Your task to perform on an android device: Search for "macbook pro" on ebay, select the first entry, and add it to the cart. Image 0: 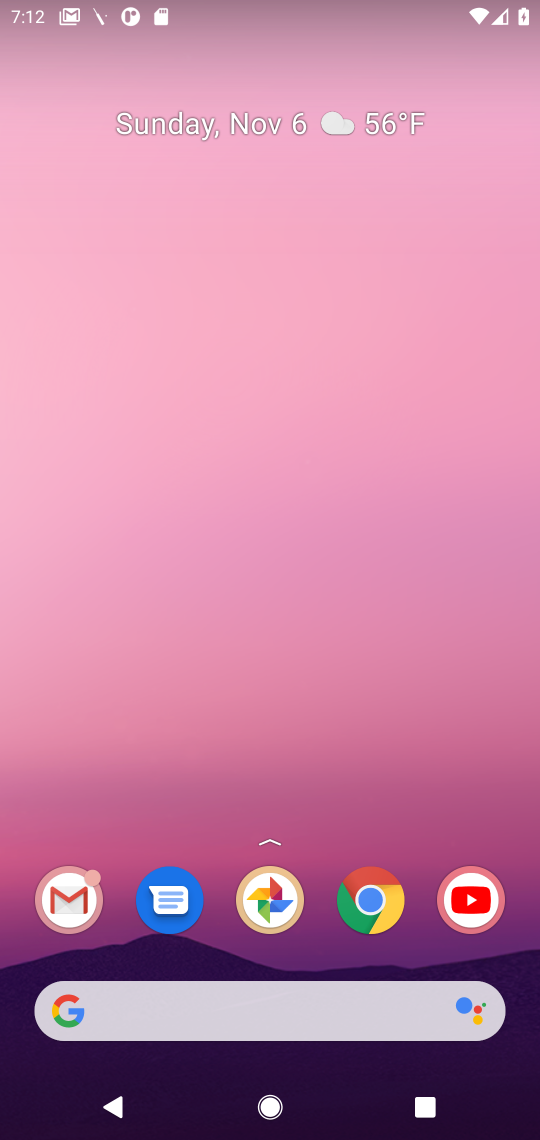
Step 0: drag from (311, 791) to (314, 140)
Your task to perform on an android device: Search for "macbook pro" on ebay, select the first entry, and add it to the cart. Image 1: 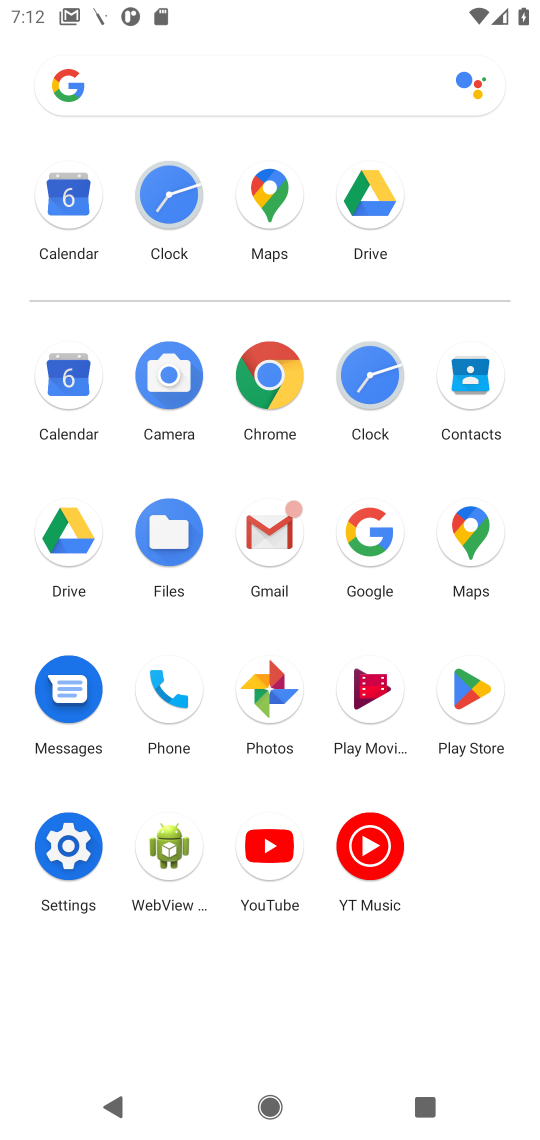
Step 1: click (284, 381)
Your task to perform on an android device: Search for "macbook pro" on ebay, select the first entry, and add it to the cart. Image 2: 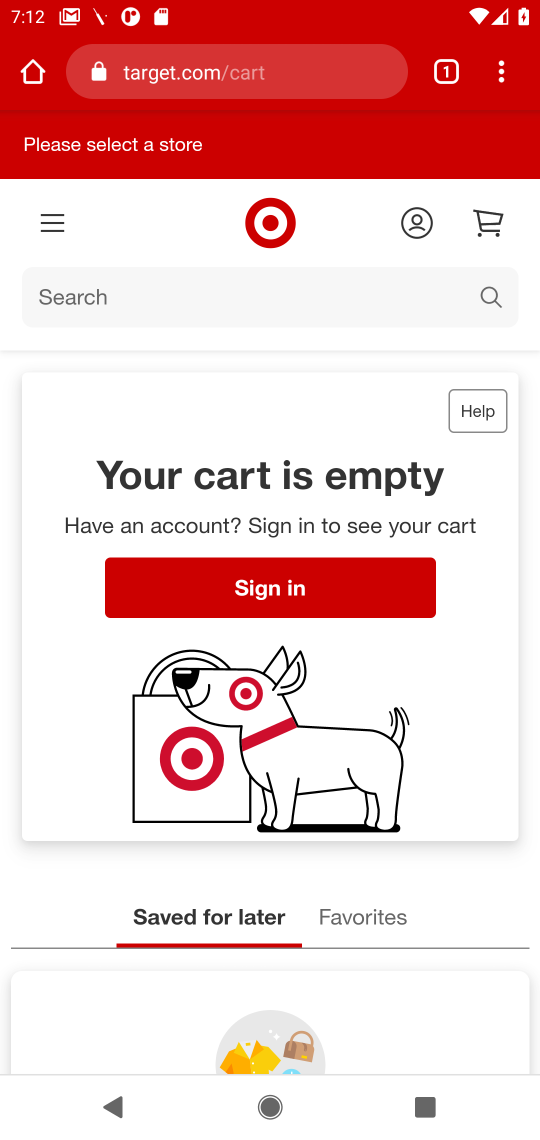
Step 2: click (310, 79)
Your task to perform on an android device: Search for "macbook pro" on ebay, select the first entry, and add it to the cart. Image 3: 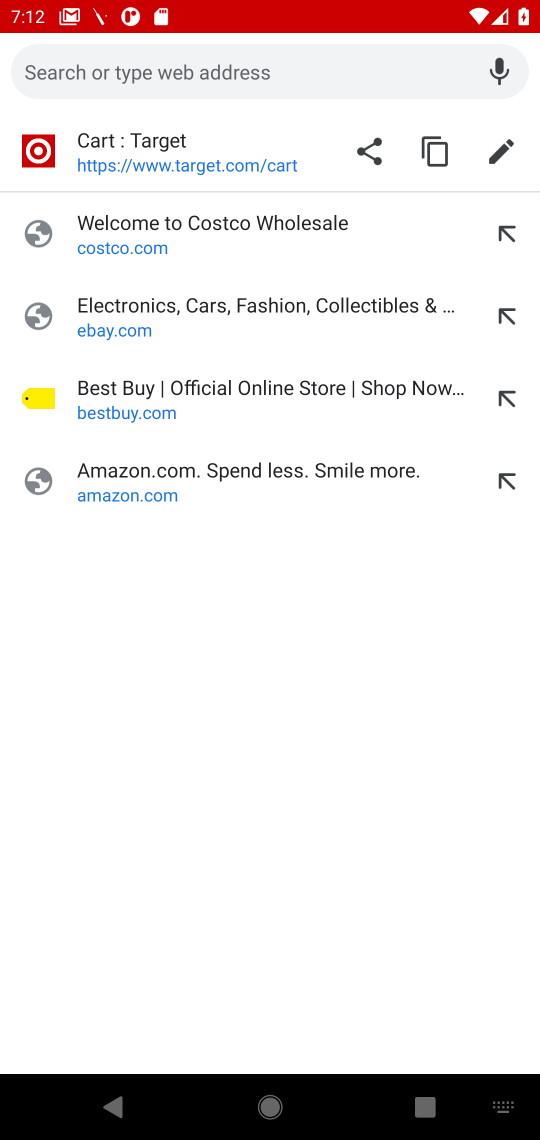
Step 3: type "ebay.com"
Your task to perform on an android device: Search for "macbook pro" on ebay, select the first entry, and add it to the cart. Image 4: 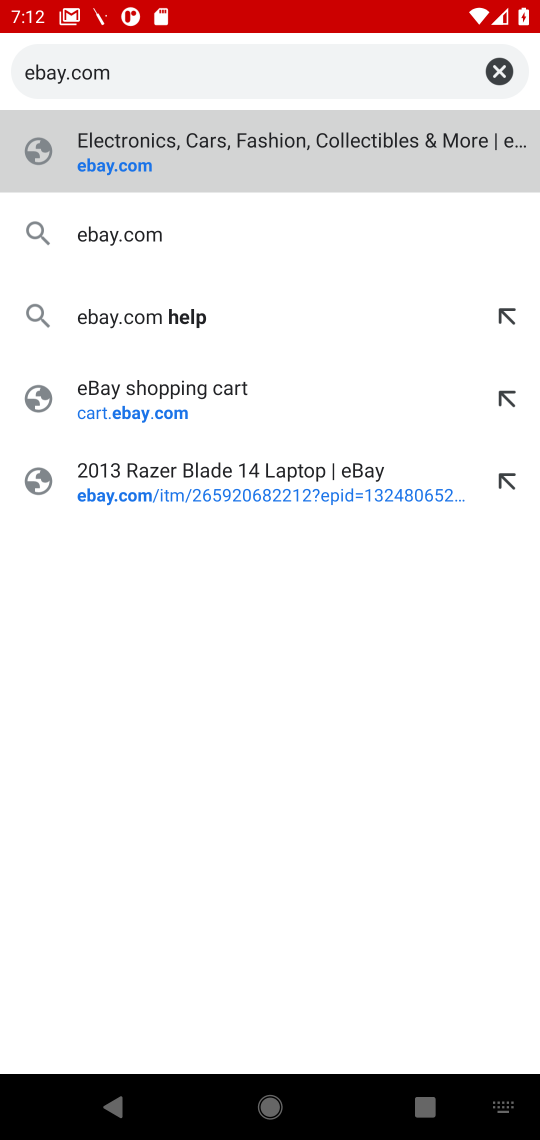
Step 4: press enter
Your task to perform on an android device: Search for "macbook pro" on ebay, select the first entry, and add it to the cart. Image 5: 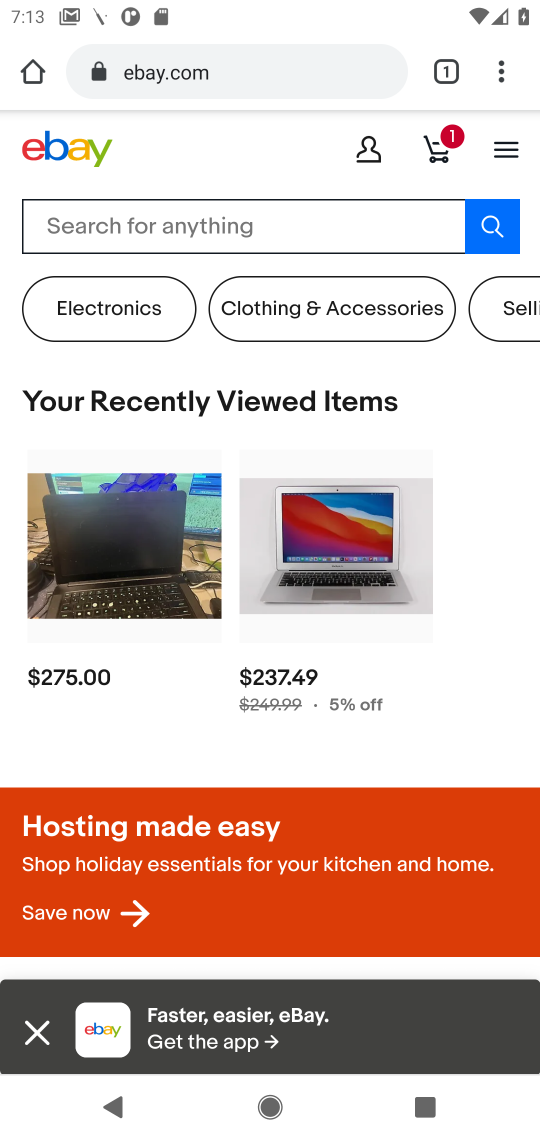
Step 5: click (365, 233)
Your task to perform on an android device: Search for "macbook pro" on ebay, select the first entry, and add it to the cart. Image 6: 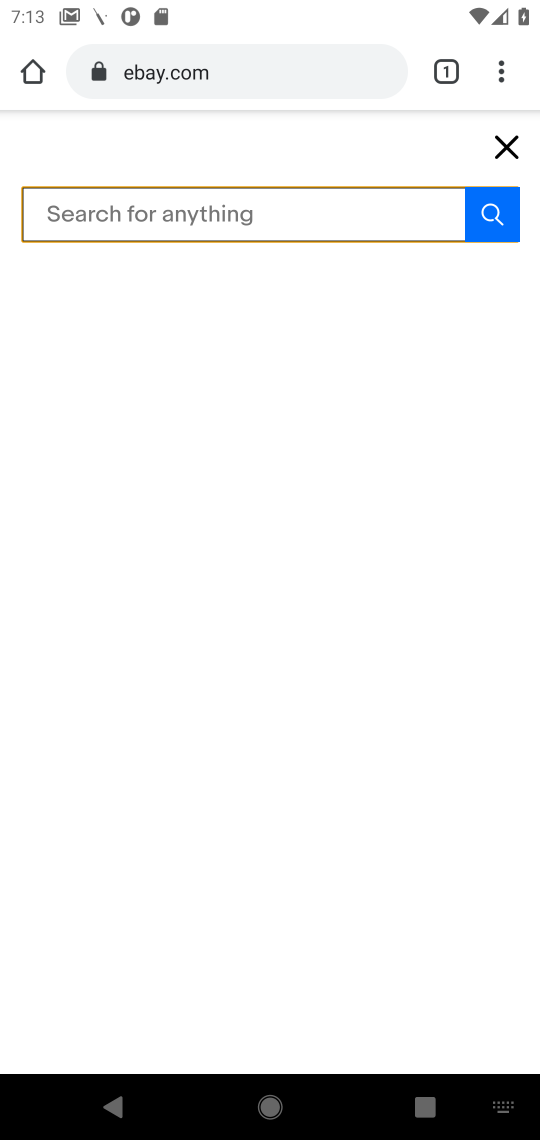
Step 6: type "macbook pro"
Your task to perform on an android device: Search for "macbook pro" on ebay, select the first entry, and add it to the cart. Image 7: 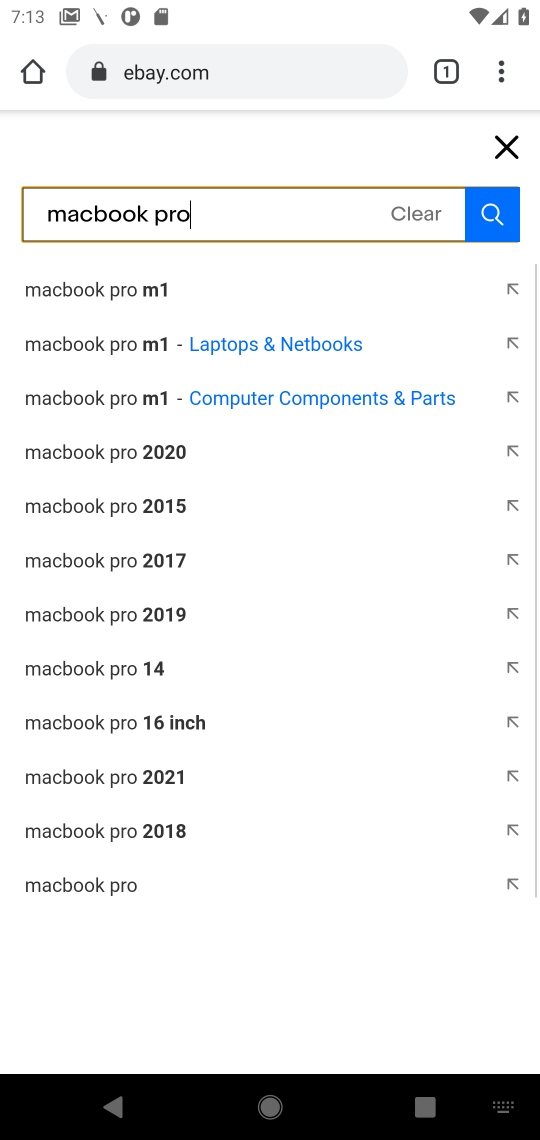
Step 7: press enter
Your task to perform on an android device: Search for "macbook pro" on ebay, select the first entry, and add it to the cart. Image 8: 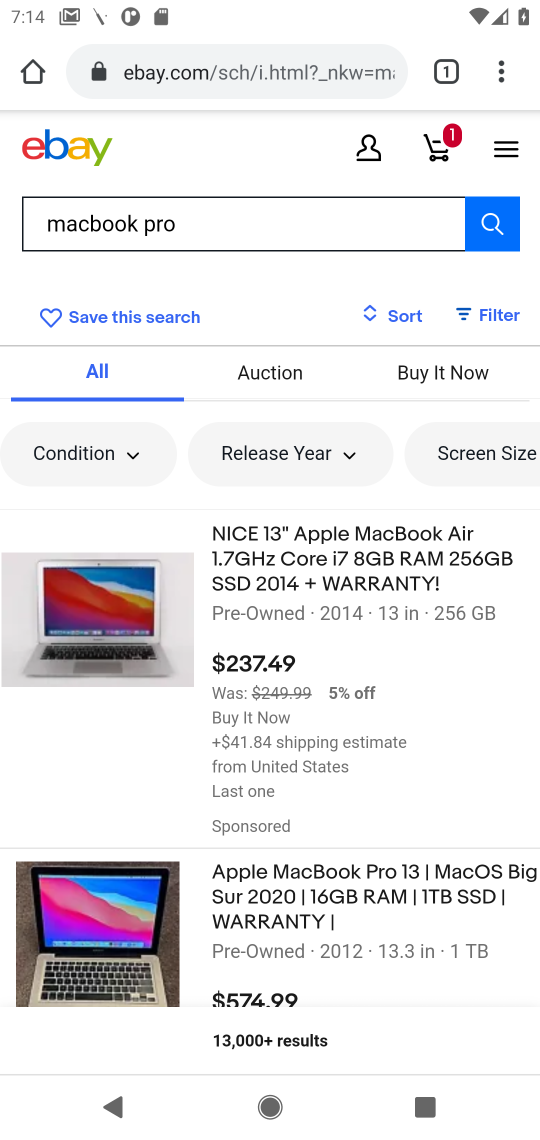
Step 8: drag from (286, 949) to (256, 559)
Your task to perform on an android device: Search for "macbook pro" on ebay, select the first entry, and add it to the cart. Image 9: 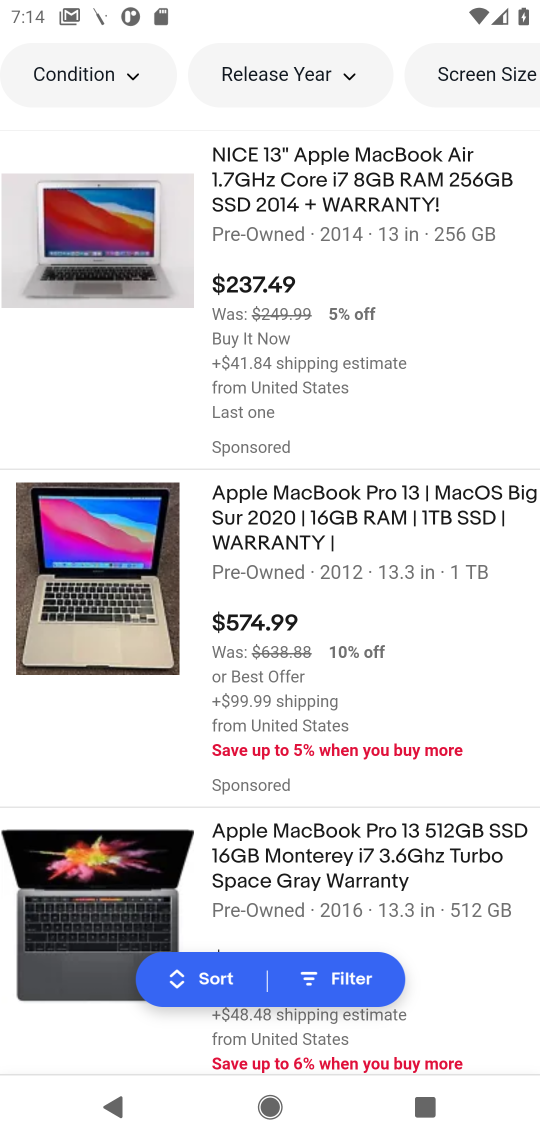
Step 9: drag from (366, 911) to (314, 262)
Your task to perform on an android device: Search for "macbook pro" on ebay, select the first entry, and add it to the cart. Image 10: 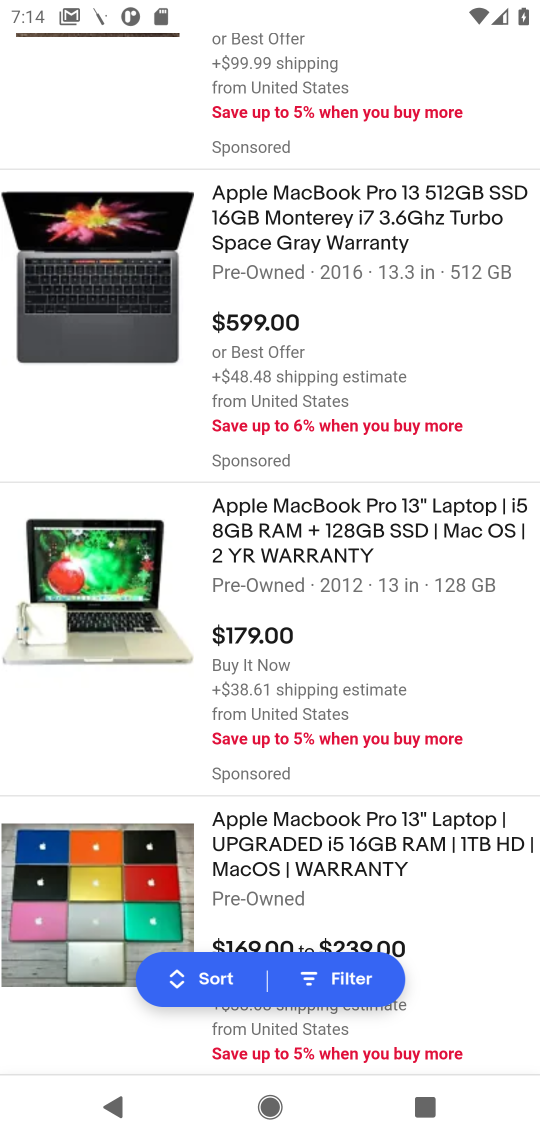
Step 10: drag from (395, 910) to (388, 615)
Your task to perform on an android device: Search for "macbook pro" on ebay, select the first entry, and add it to the cart. Image 11: 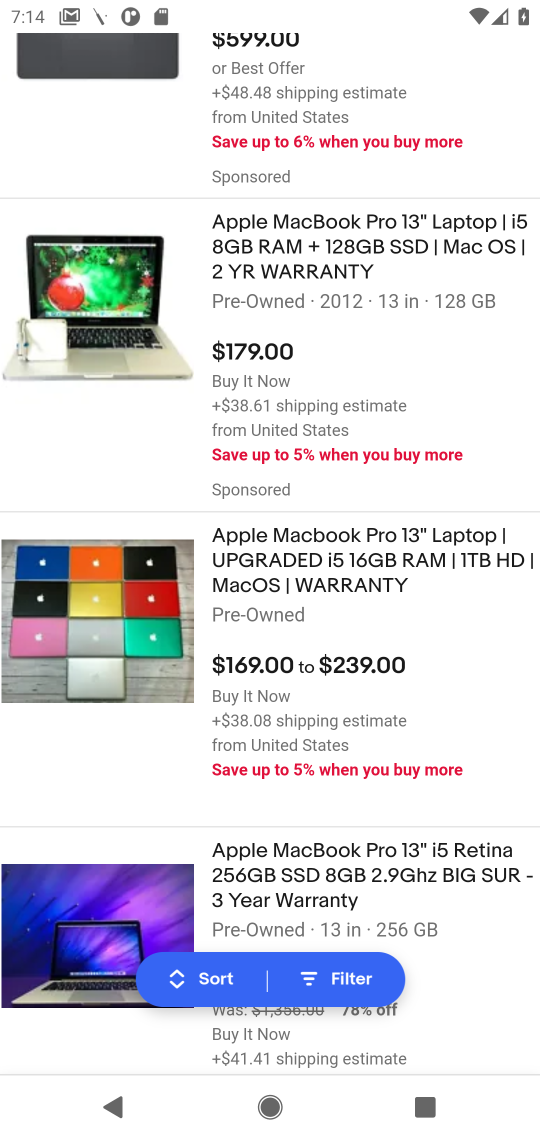
Step 11: click (288, 569)
Your task to perform on an android device: Search for "macbook pro" on ebay, select the first entry, and add it to the cart. Image 12: 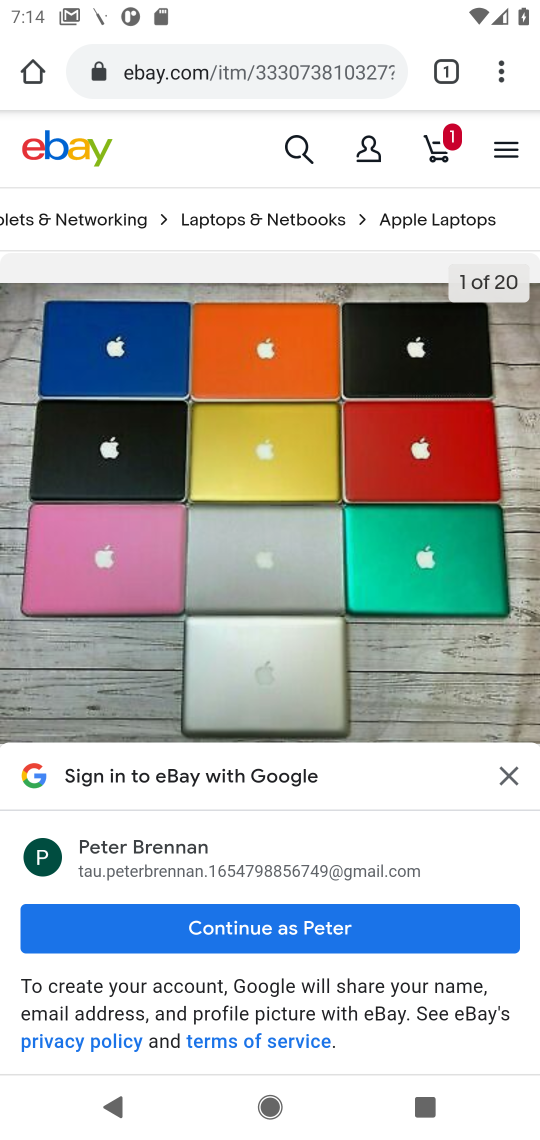
Step 12: drag from (280, 606) to (276, 188)
Your task to perform on an android device: Search for "macbook pro" on ebay, select the first entry, and add it to the cart. Image 13: 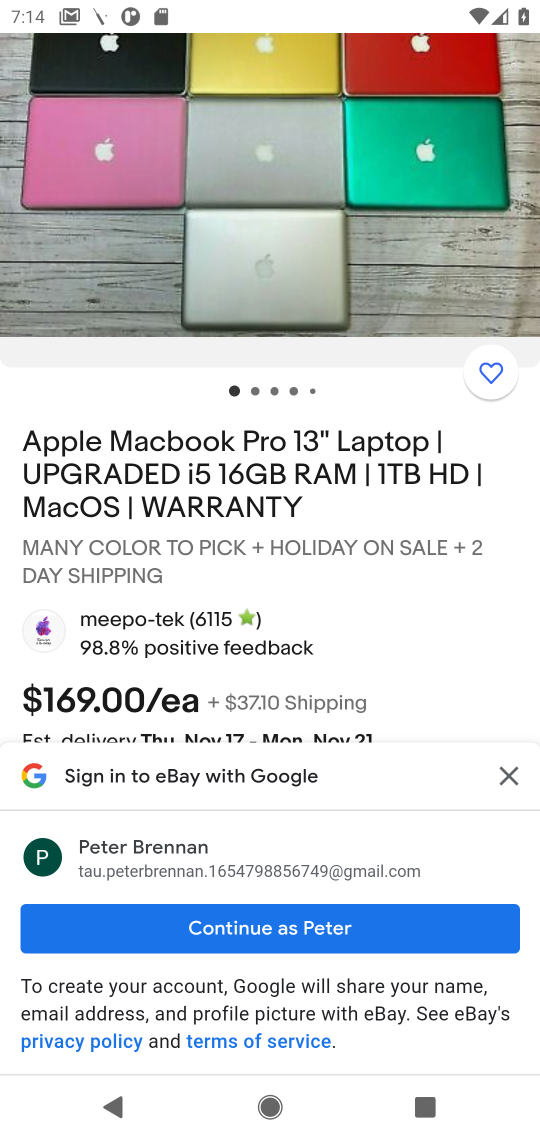
Step 13: drag from (328, 585) to (281, 265)
Your task to perform on an android device: Search for "macbook pro" on ebay, select the first entry, and add it to the cart. Image 14: 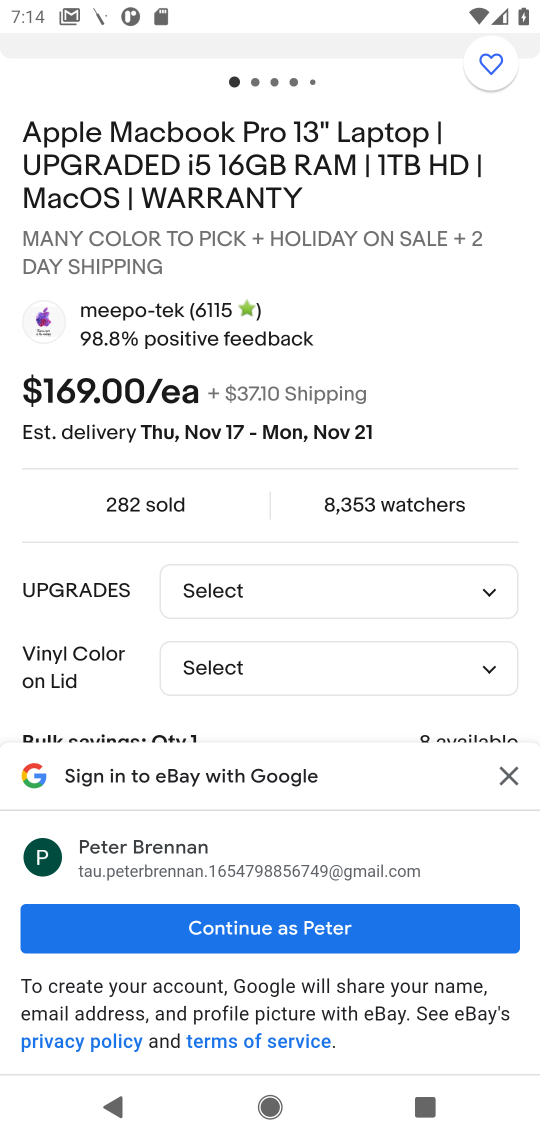
Step 14: drag from (359, 711) to (303, 272)
Your task to perform on an android device: Search for "macbook pro" on ebay, select the first entry, and add it to the cart. Image 15: 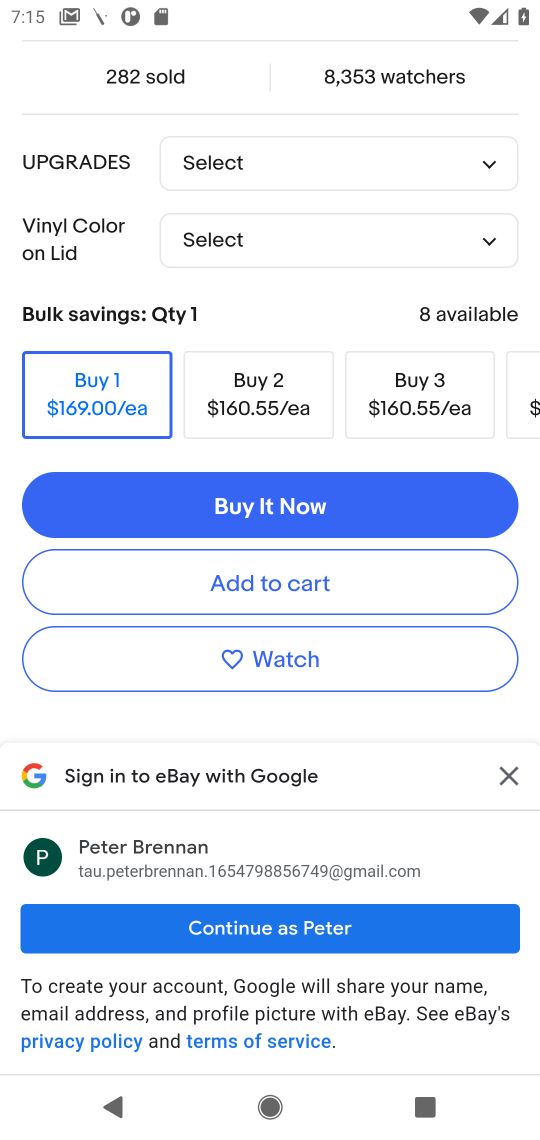
Step 15: click (301, 588)
Your task to perform on an android device: Search for "macbook pro" on ebay, select the first entry, and add it to the cart. Image 16: 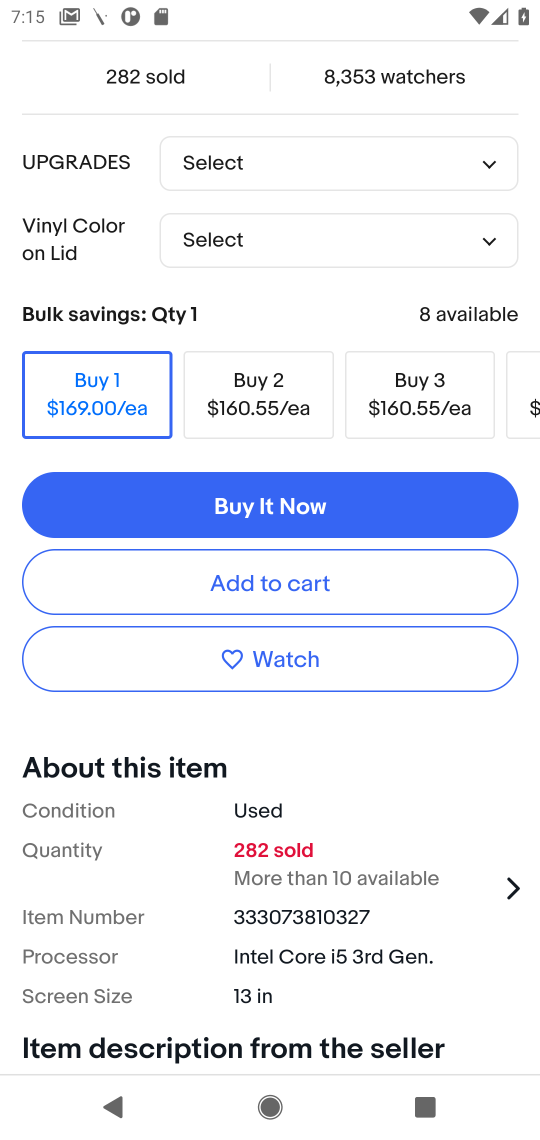
Step 16: click (273, 591)
Your task to perform on an android device: Search for "macbook pro" on ebay, select the first entry, and add it to the cart. Image 17: 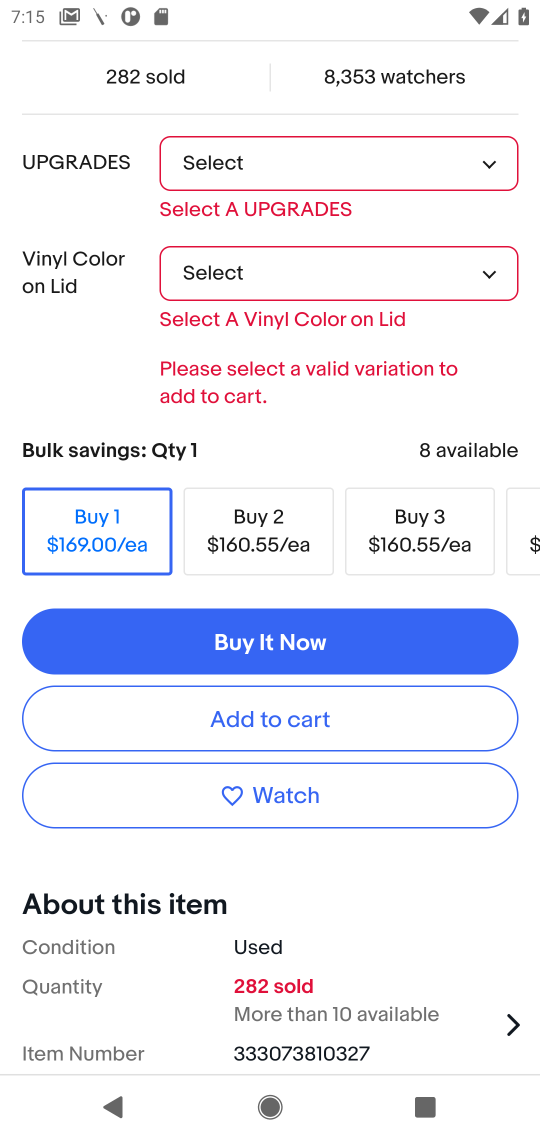
Step 17: click (314, 155)
Your task to perform on an android device: Search for "macbook pro" on ebay, select the first entry, and add it to the cart. Image 18: 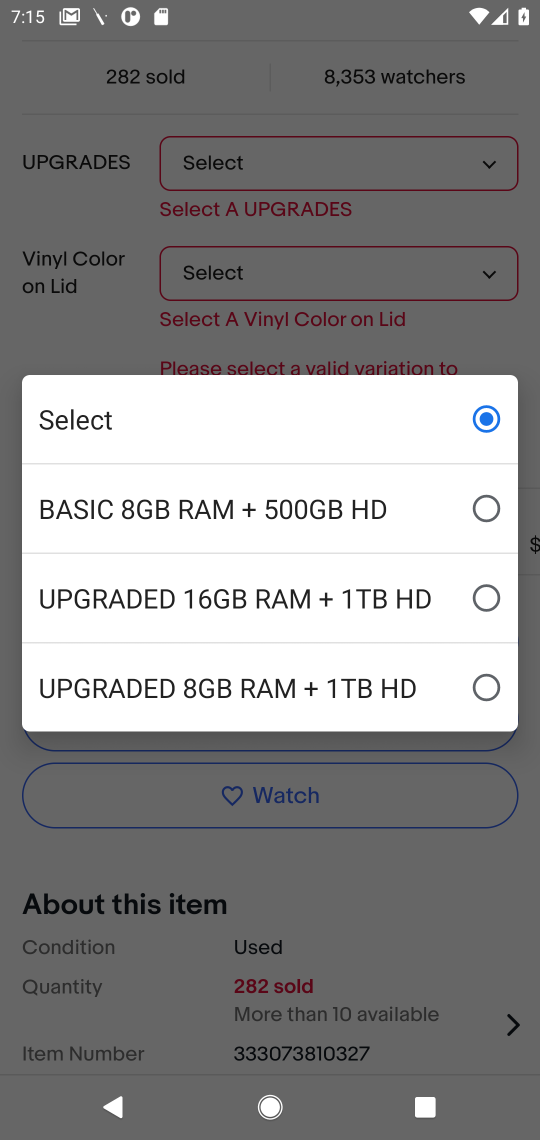
Step 18: click (298, 517)
Your task to perform on an android device: Search for "macbook pro" on ebay, select the first entry, and add it to the cart. Image 19: 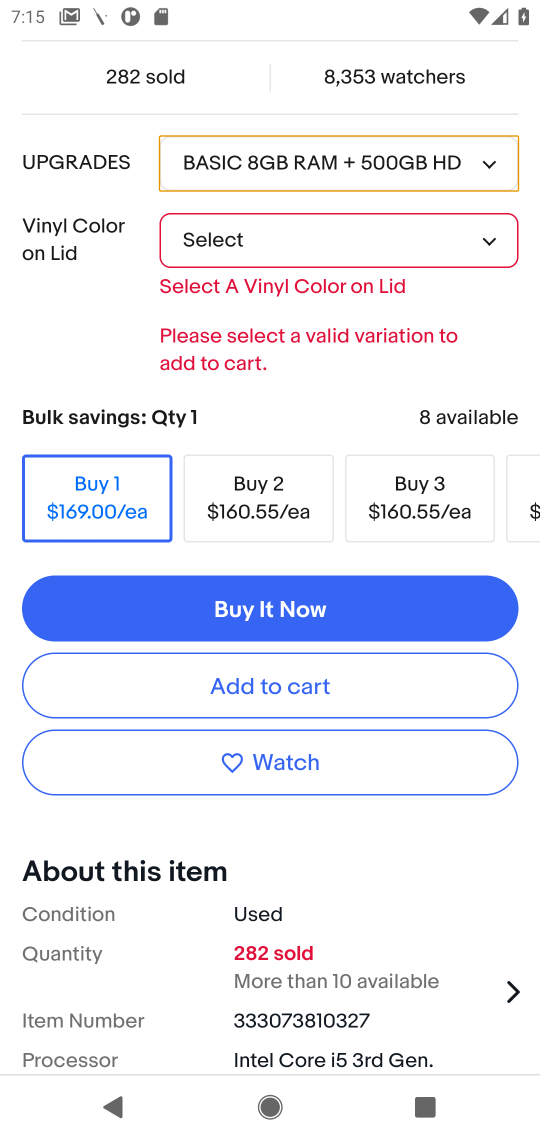
Step 19: click (312, 258)
Your task to perform on an android device: Search for "macbook pro" on ebay, select the first entry, and add it to the cart. Image 20: 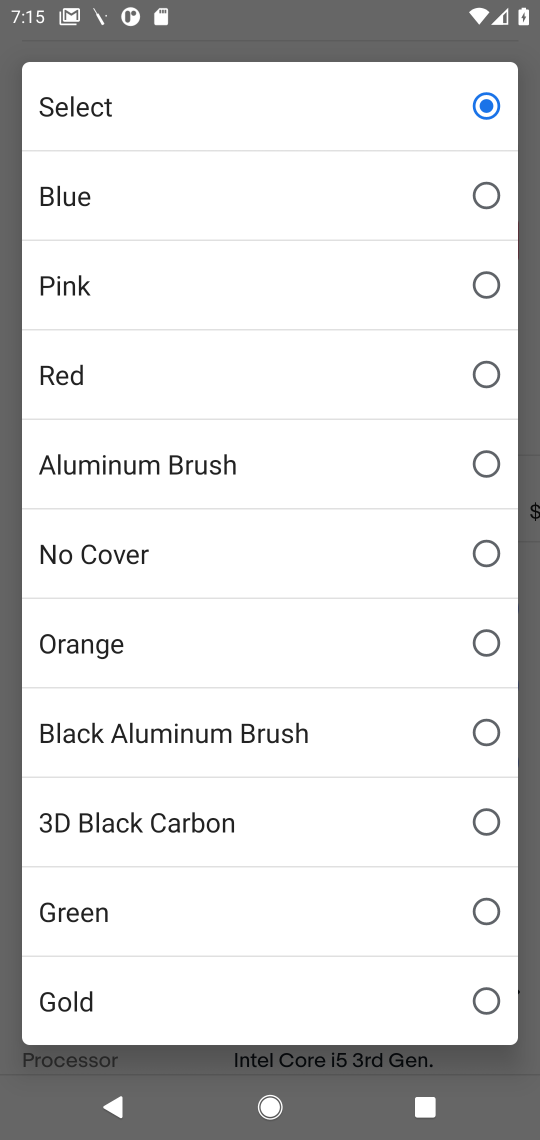
Step 20: click (312, 258)
Your task to perform on an android device: Search for "macbook pro" on ebay, select the first entry, and add it to the cart. Image 21: 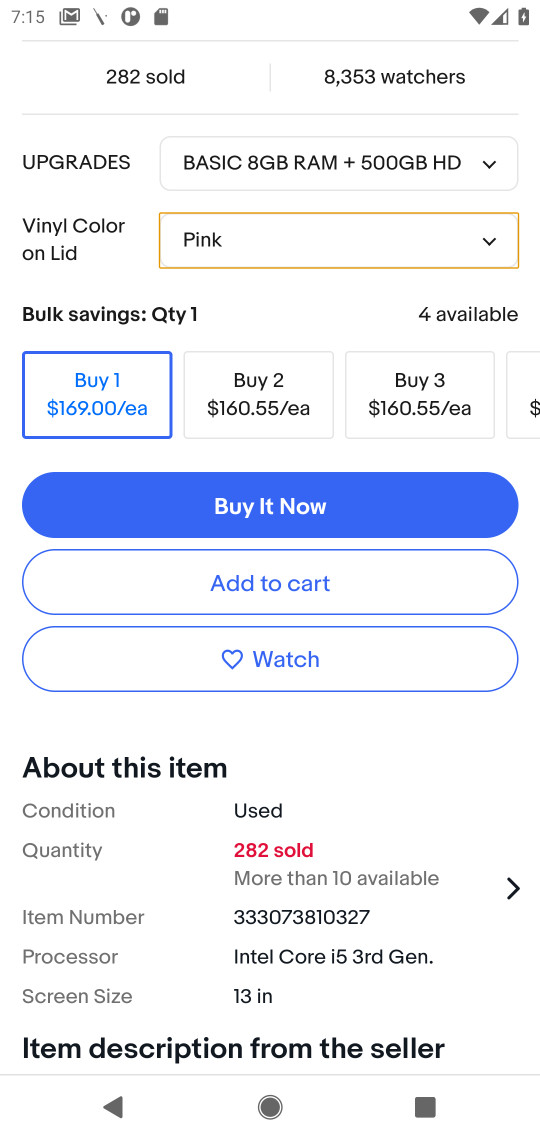
Step 21: click (293, 573)
Your task to perform on an android device: Search for "macbook pro" on ebay, select the first entry, and add it to the cart. Image 22: 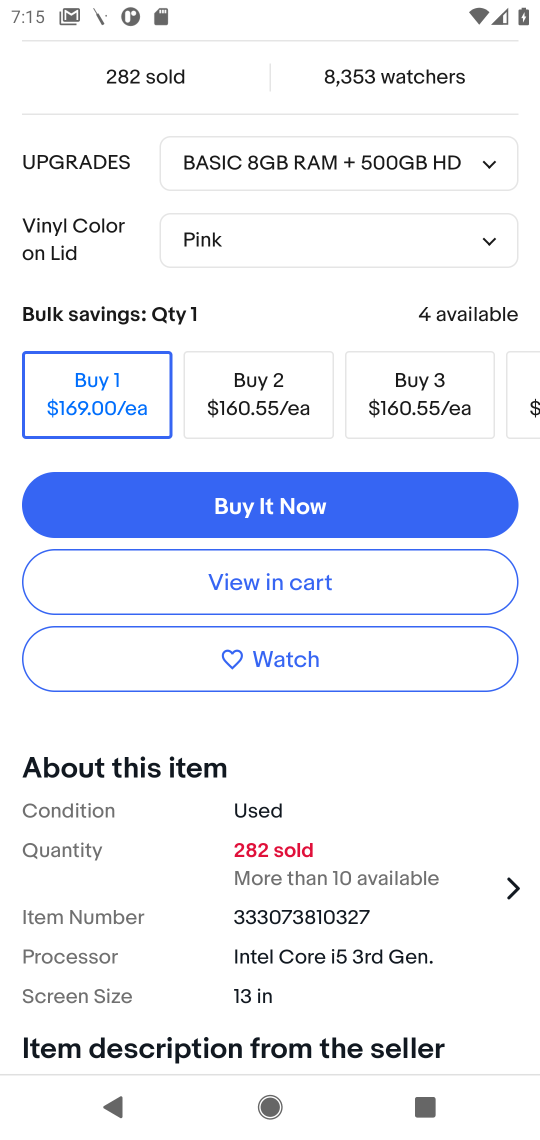
Step 22: task complete